Your task to perform on an android device: open a new tab in the chrome app Image 0: 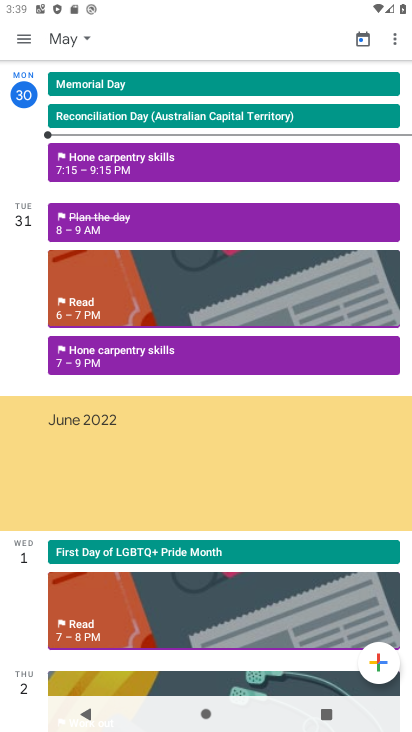
Step 0: press home button
Your task to perform on an android device: open a new tab in the chrome app Image 1: 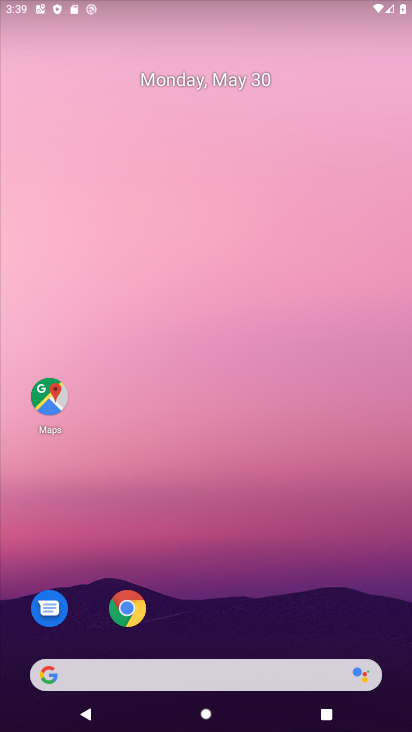
Step 1: drag from (192, 639) to (200, 324)
Your task to perform on an android device: open a new tab in the chrome app Image 2: 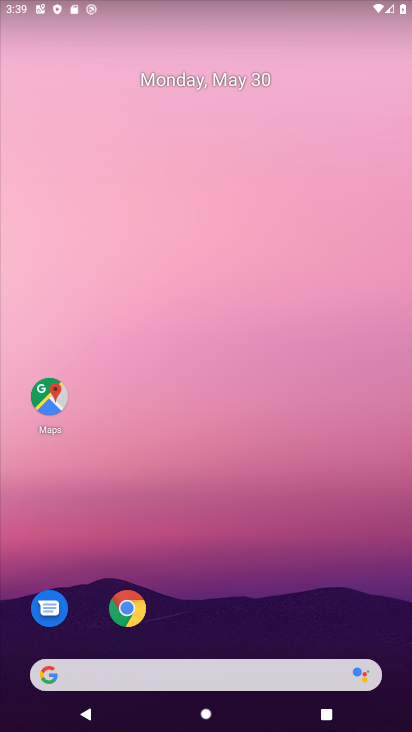
Step 2: drag from (221, 601) to (242, 330)
Your task to perform on an android device: open a new tab in the chrome app Image 3: 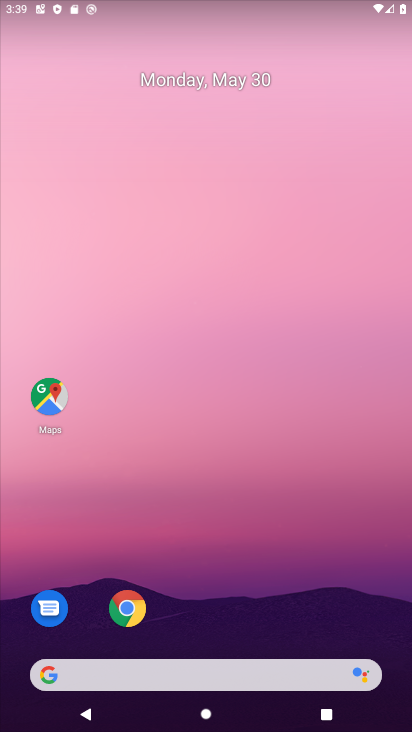
Step 3: drag from (219, 656) to (250, 244)
Your task to perform on an android device: open a new tab in the chrome app Image 4: 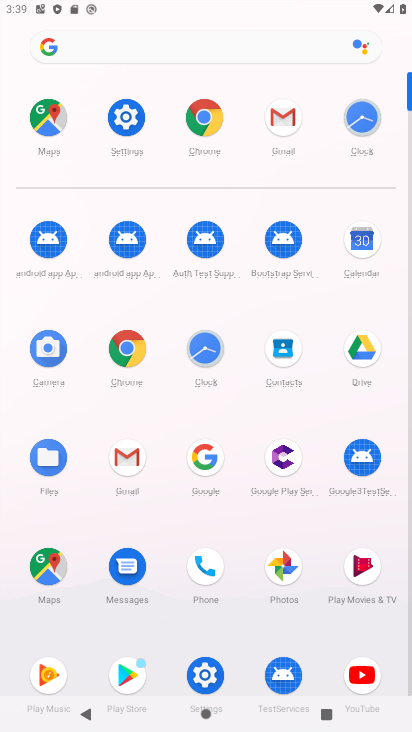
Step 4: click (132, 341)
Your task to perform on an android device: open a new tab in the chrome app Image 5: 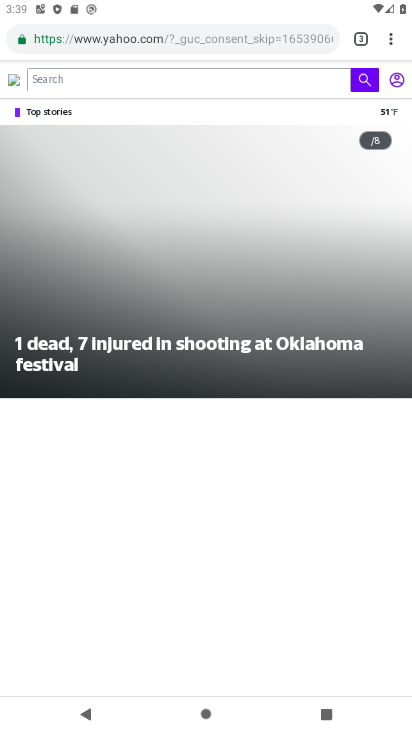
Step 5: click (385, 41)
Your task to perform on an android device: open a new tab in the chrome app Image 6: 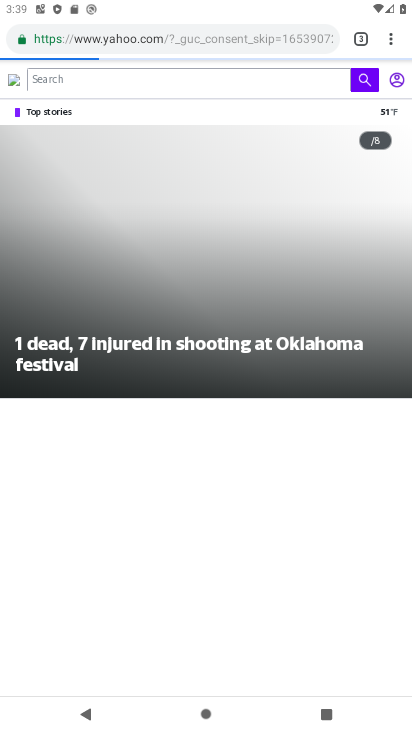
Step 6: click (392, 39)
Your task to perform on an android device: open a new tab in the chrome app Image 7: 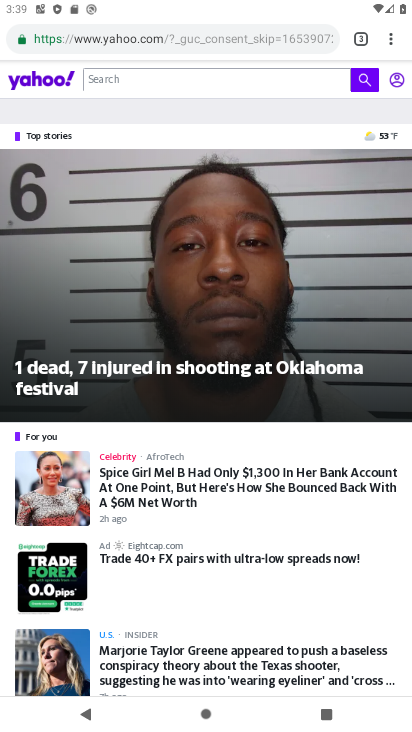
Step 7: click (392, 39)
Your task to perform on an android device: open a new tab in the chrome app Image 8: 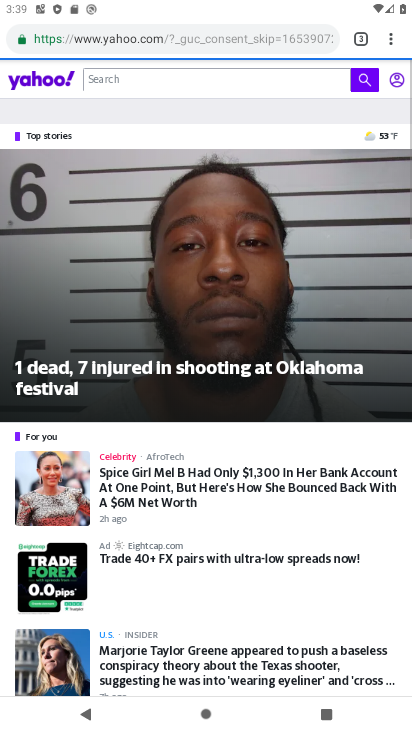
Step 8: click (392, 39)
Your task to perform on an android device: open a new tab in the chrome app Image 9: 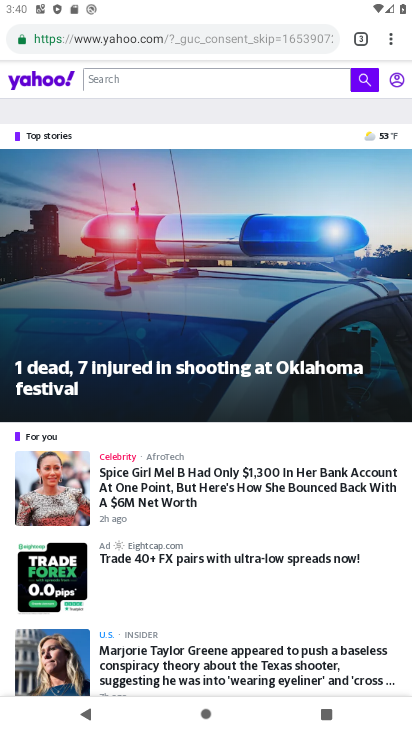
Step 9: click (391, 31)
Your task to perform on an android device: open a new tab in the chrome app Image 10: 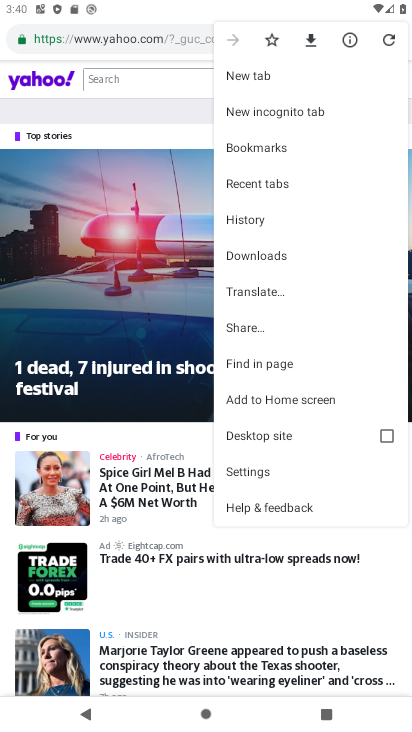
Step 10: click (256, 76)
Your task to perform on an android device: open a new tab in the chrome app Image 11: 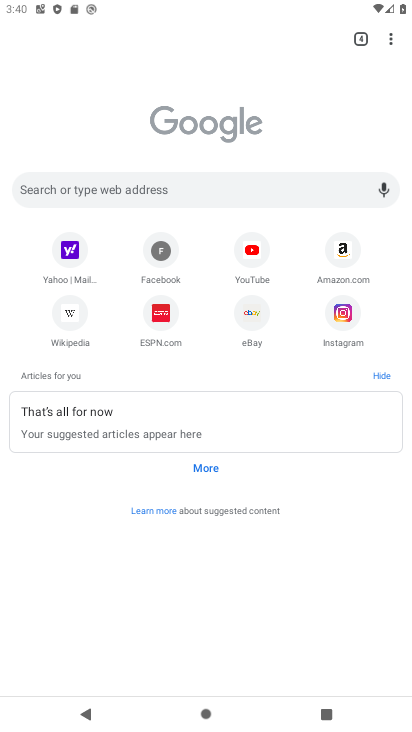
Step 11: task complete